Your task to perform on an android device: delete a single message in the gmail app Image 0: 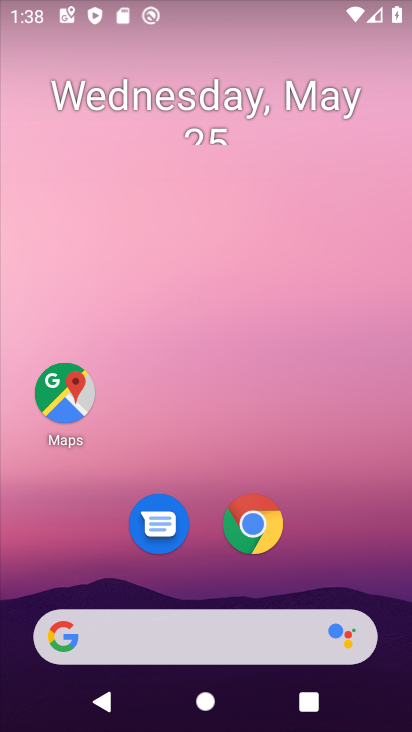
Step 0: drag from (252, 434) to (295, 35)
Your task to perform on an android device: delete a single message in the gmail app Image 1: 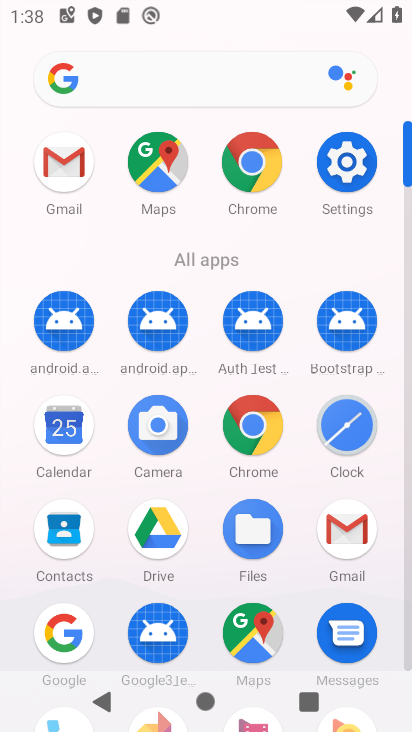
Step 1: click (60, 160)
Your task to perform on an android device: delete a single message in the gmail app Image 2: 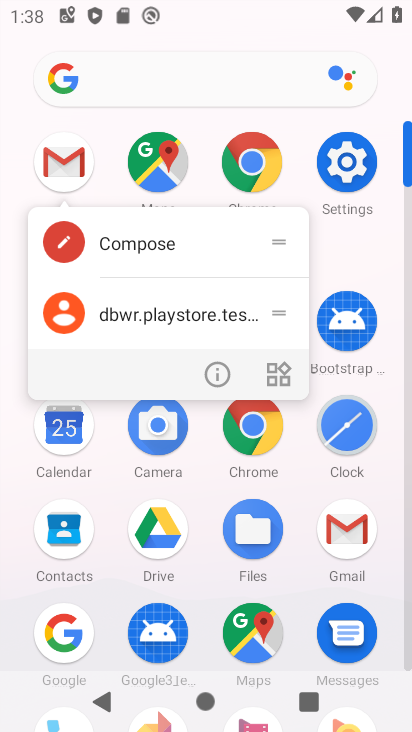
Step 2: click (65, 140)
Your task to perform on an android device: delete a single message in the gmail app Image 3: 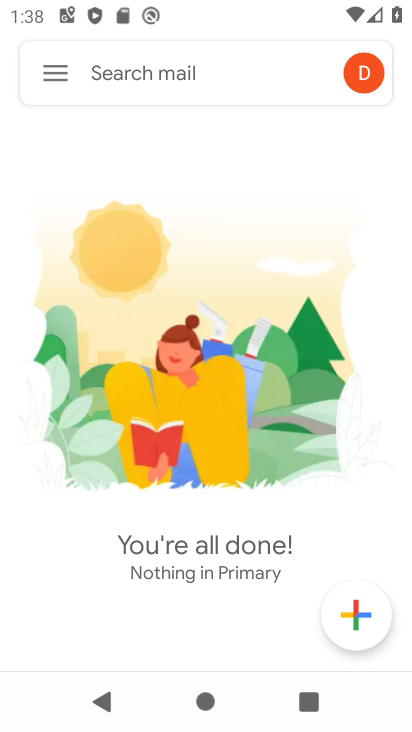
Step 3: click (57, 71)
Your task to perform on an android device: delete a single message in the gmail app Image 4: 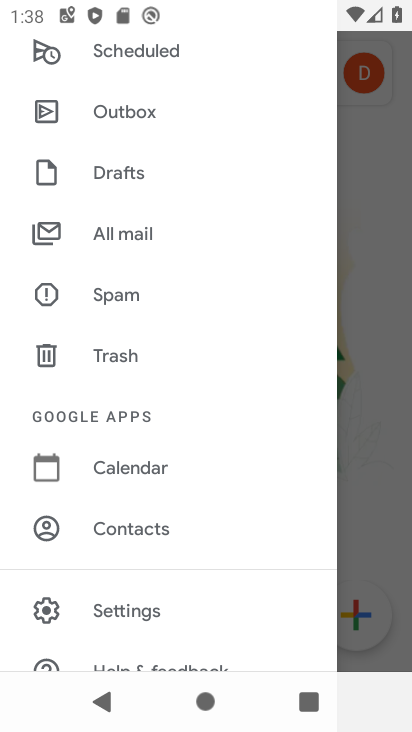
Step 4: click (129, 234)
Your task to perform on an android device: delete a single message in the gmail app Image 5: 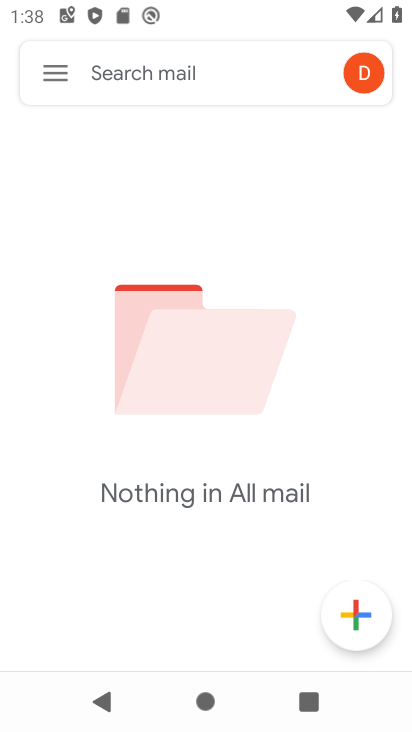
Step 5: task complete